Your task to perform on an android device: set the stopwatch Image 0: 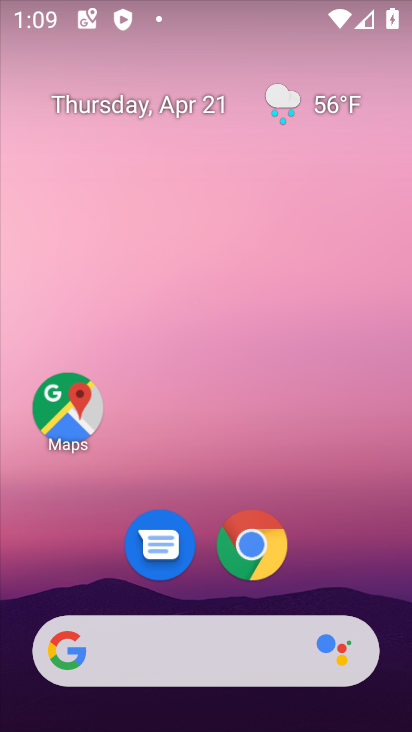
Step 0: drag from (207, 645) to (331, 106)
Your task to perform on an android device: set the stopwatch Image 1: 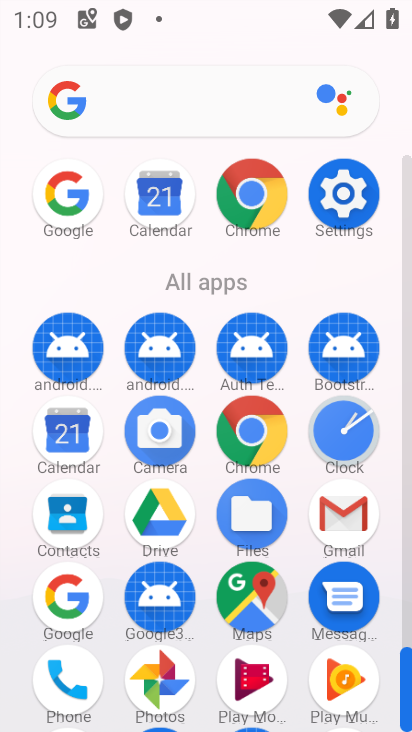
Step 1: click (330, 444)
Your task to perform on an android device: set the stopwatch Image 2: 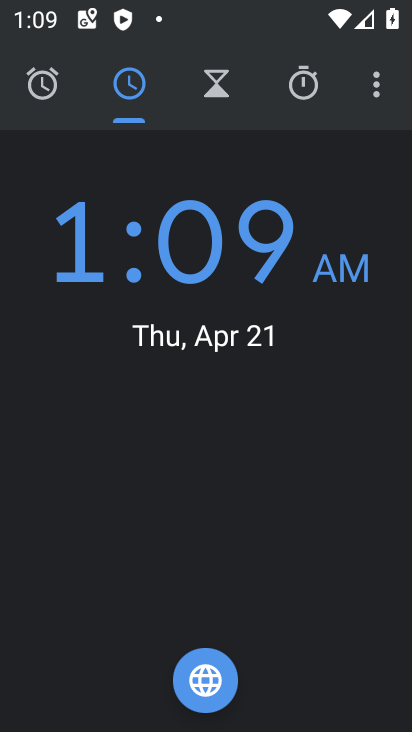
Step 2: click (309, 89)
Your task to perform on an android device: set the stopwatch Image 3: 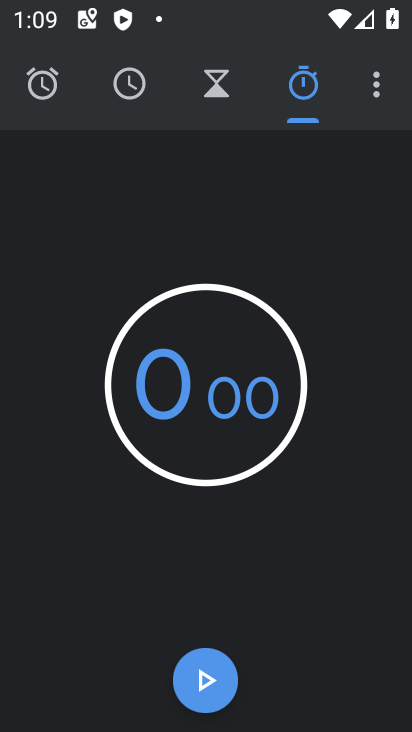
Step 3: click (206, 386)
Your task to perform on an android device: set the stopwatch Image 4: 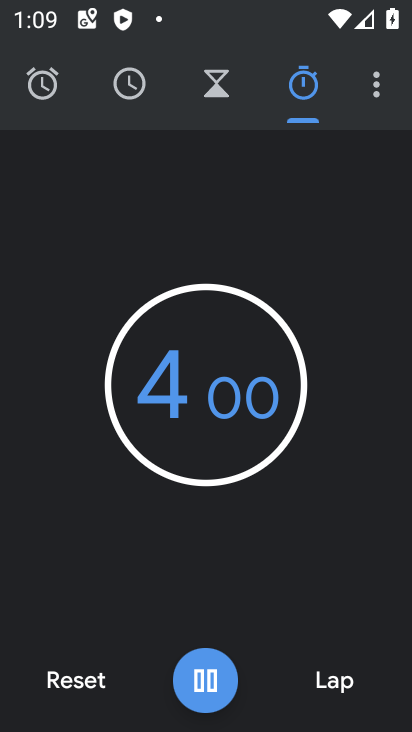
Step 4: click (210, 392)
Your task to perform on an android device: set the stopwatch Image 5: 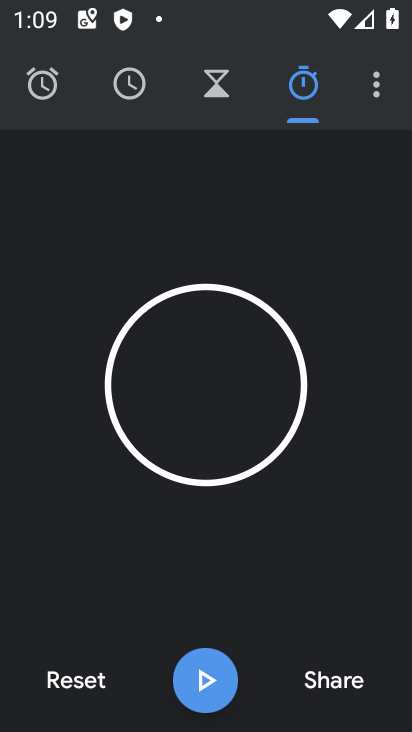
Step 5: task complete